Your task to perform on an android device: Do I have any events today? Image 0: 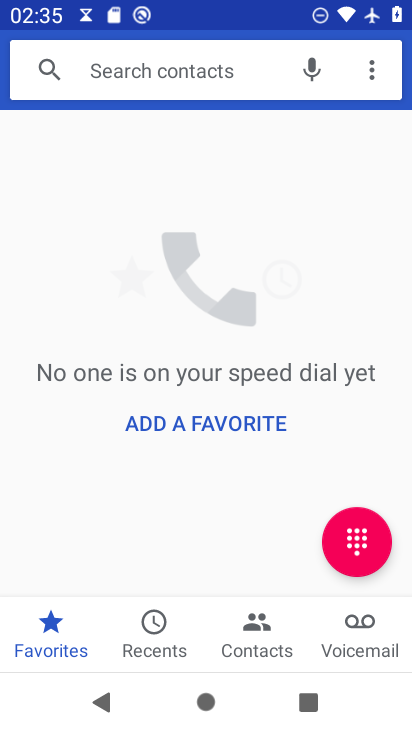
Step 0: press home button
Your task to perform on an android device: Do I have any events today? Image 1: 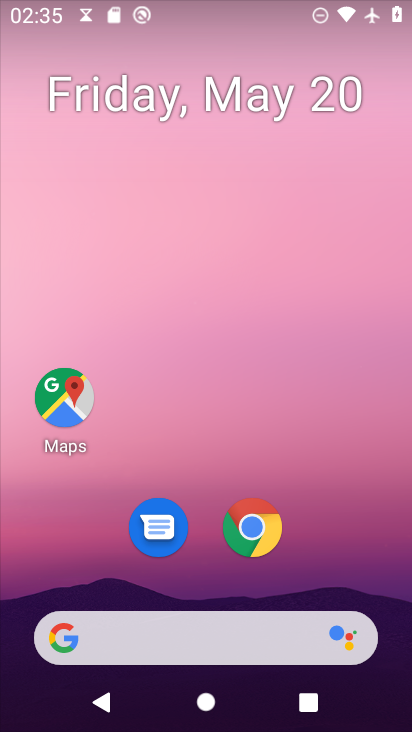
Step 1: drag from (186, 566) to (250, 223)
Your task to perform on an android device: Do I have any events today? Image 2: 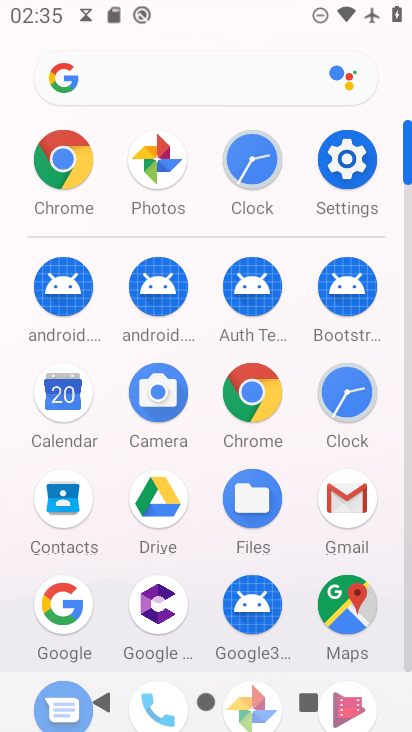
Step 2: click (56, 391)
Your task to perform on an android device: Do I have any events today? Image 3: 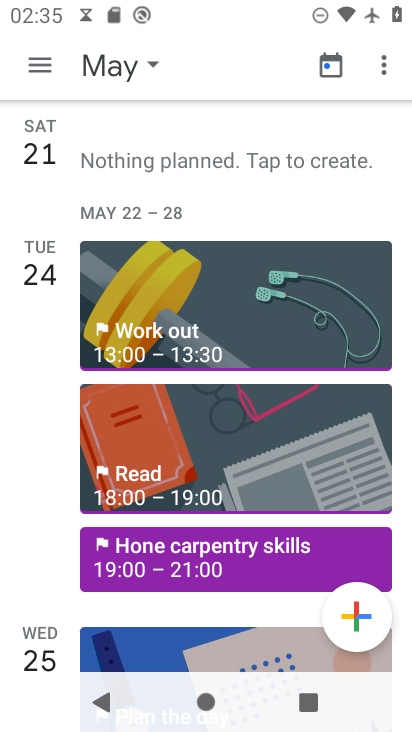
Step 3: click (89, 71)
Your task to perform on an android device: Do I have any events today? Image 4: 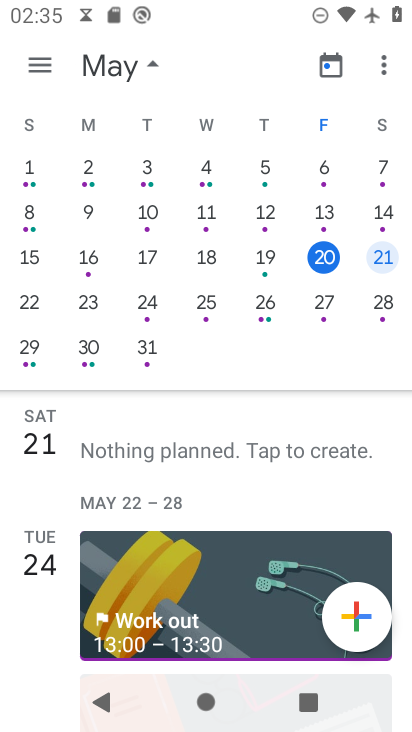
Step 4: click (324, 269)
Your task to perform on an android device: Do I have any events today? Image 5: 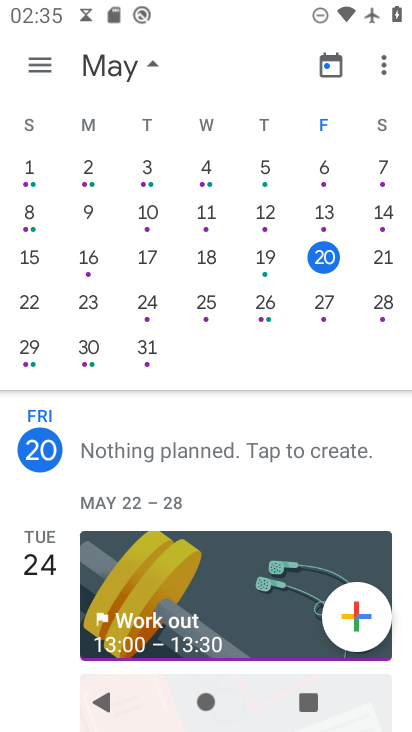
Step 5: click (38, 66)
Your task to perform on an android device: Do I have any events today? Image 6: 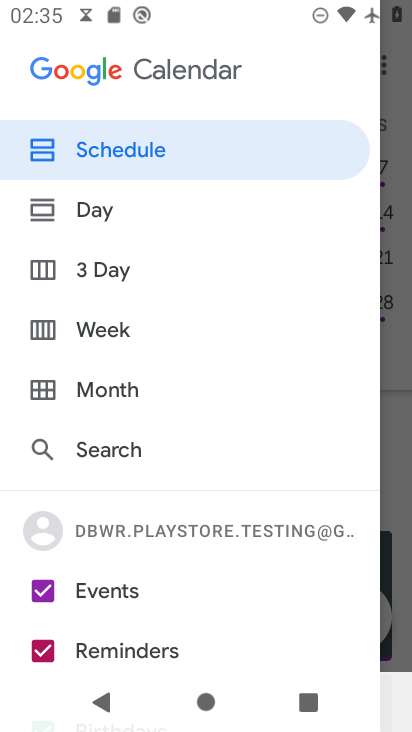
Step 6: click (126, 149)
Your task to perform on an android device: Do I have any events today? Image 7: 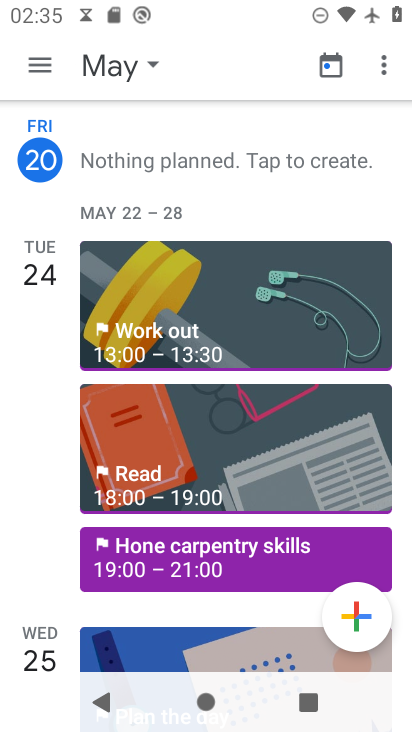
Step 7: task complete